Your task to perform on an android device: Open ESPN.com Image 0: 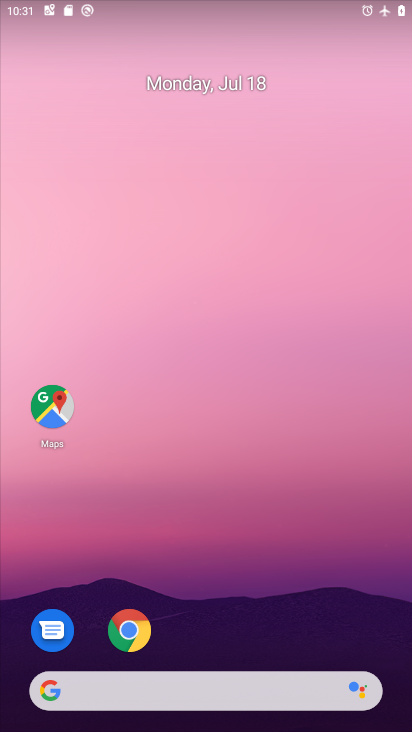
Step 0: click (121, 639)
Your task to perform on an android device: Open ESPN.com Image 1: 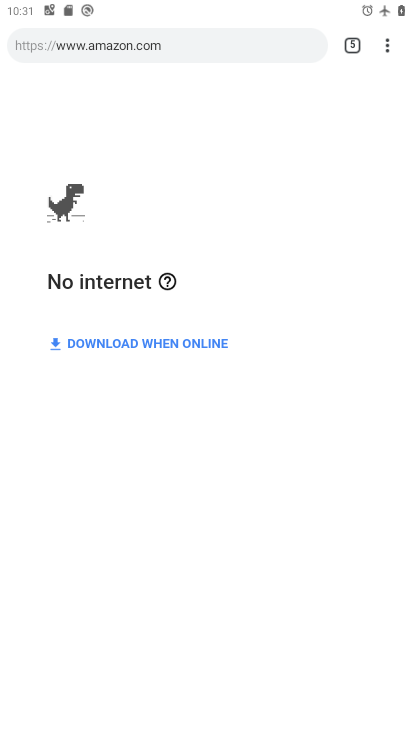
Step 1: click (354, 51)
Your task to perform on an android device: Open ESPN.com Image 2: 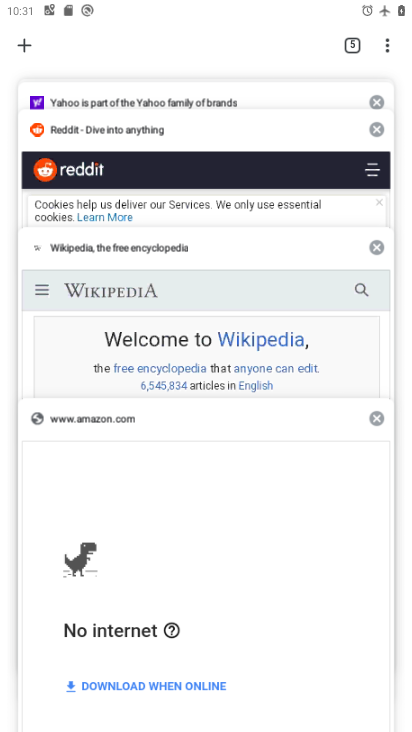
Step 2: click (27, 48)
Your task to perform on an android device: Open ESPN.com Image 3: 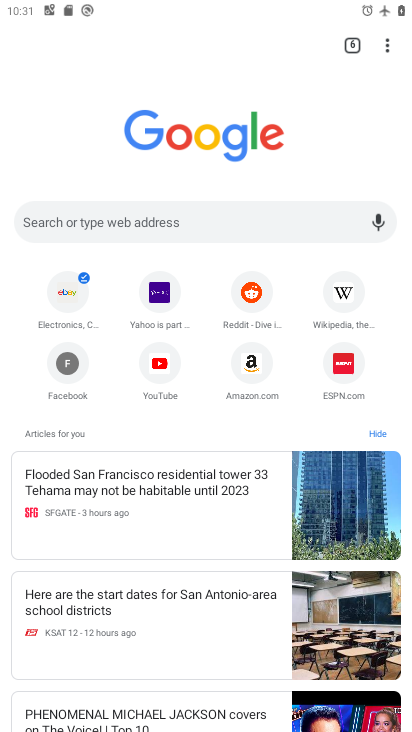
Step 3: click (150, 302)
Your task to perform on an android device: Open ESPN.com Image 4: 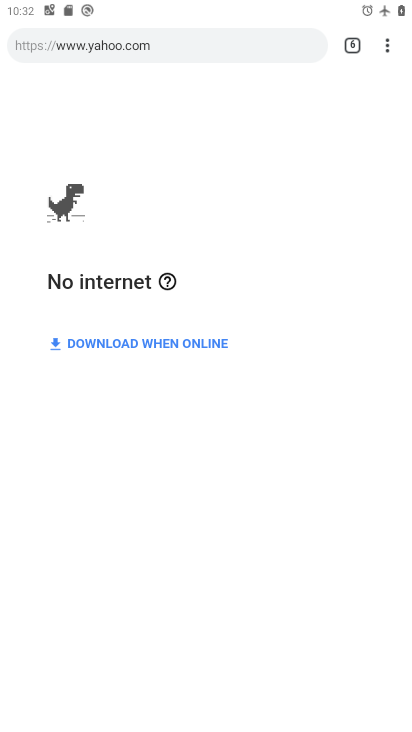
Step 4: task complete